Your task to perform on an android device: open wifi settings Image 0: 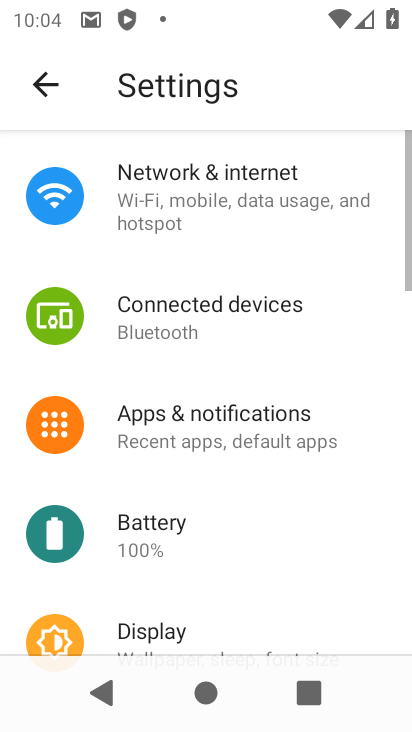
Step 0: drag from (216, 562) to (288, 148)
Your task to perform on an android device: open wifi settings Image 1: 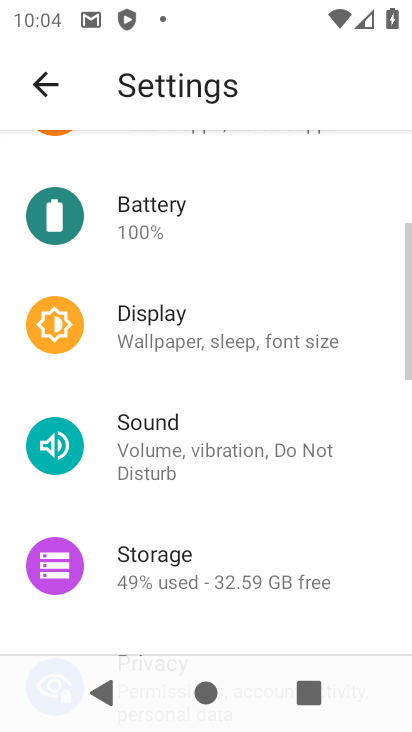
Step 1: drag from (300, 137) to (224, 612)
Your task to perform on an android device: open wifi settings Image 2: 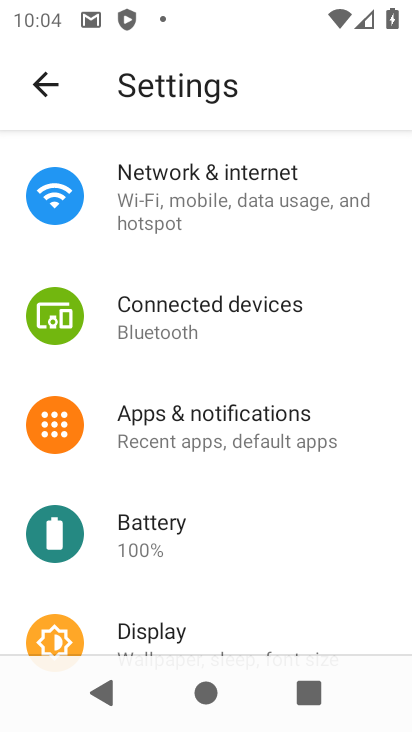
Step 2: click (191, 235)
Your task to perform on an android device: open wifi settings Image 3: 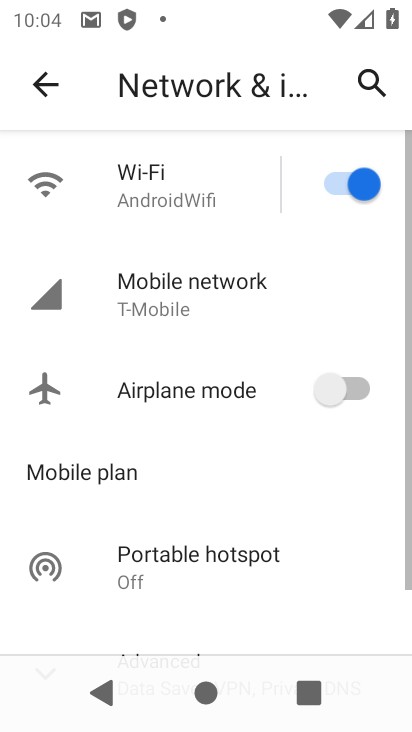
Step 3: click (236, 182)
Your task to perform on an android device: open wifi settings Image 4: 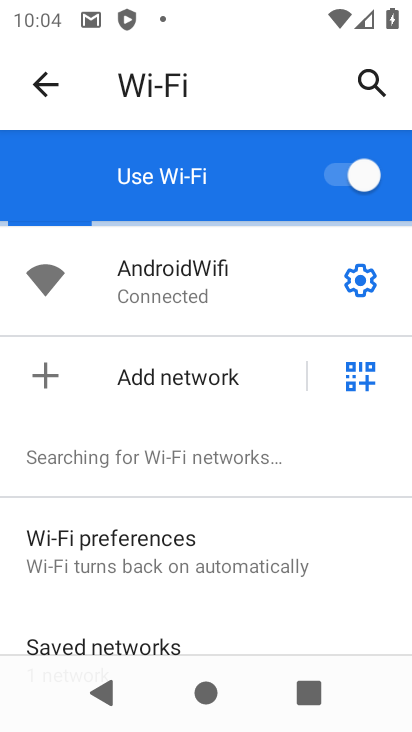
Step 4: task complete